Your task to perform on an android device: toggle pop-ups in chrome Image 0: 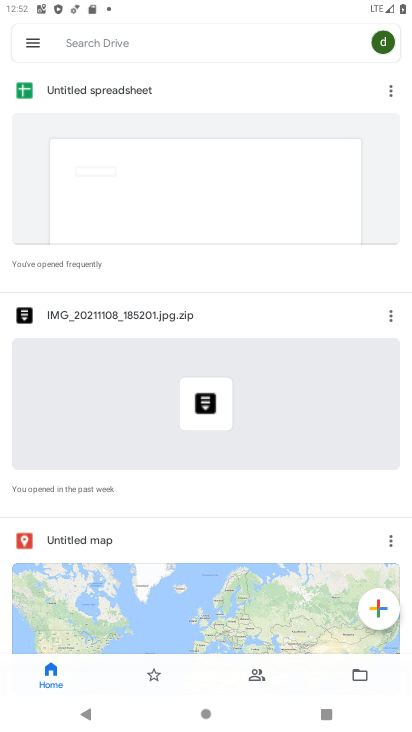
Step 0: press home button
Your task to perform on an android device: toggle pop-ups in chrome Image 1: 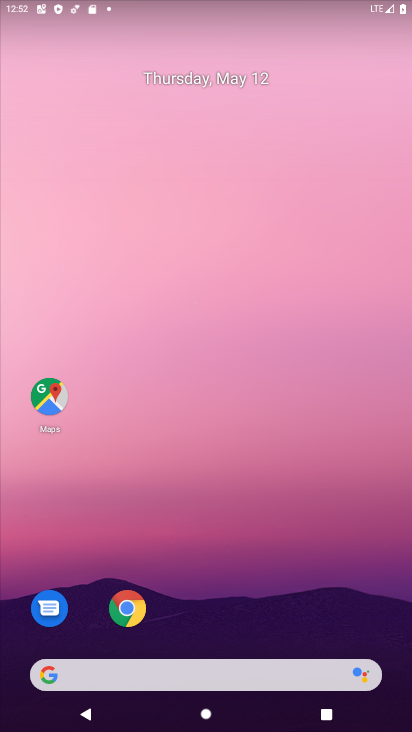
Step 1: click (128, 623)
Your task to perform on an android device: toggle pop-ups in chrome Image 2: 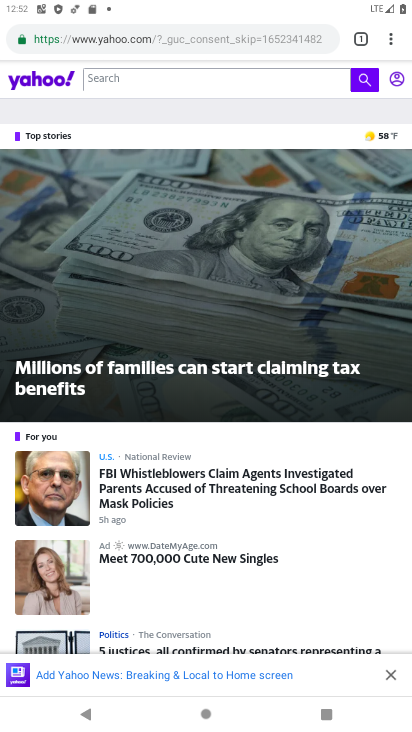
Step 2: click (388, 51)
Your task to perform on an android device: toggle pop-ups in chrome Image 3: 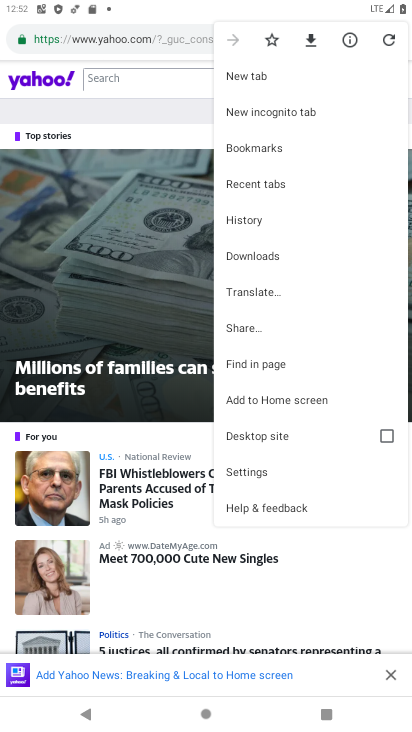
Step 3: click (250, 468)
Your task to perform on an android device: toggle pop-ups in chrome Image 4: 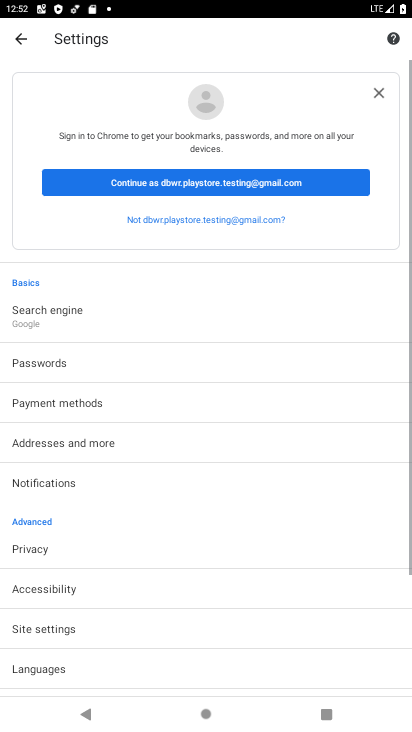
Step 4: click (39, 616)
Your task to perform on an android device: toggle pop-ups in chrome Image 5: 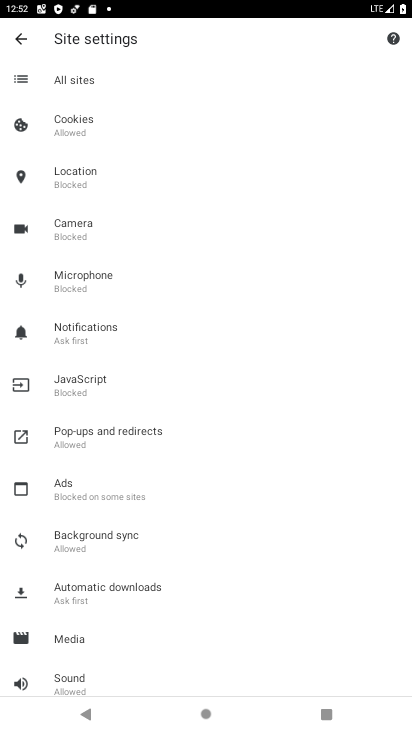
Step 5: click (77, 436)
Your task to perform on an android device: toggle pop-ups in chrome Image 6: 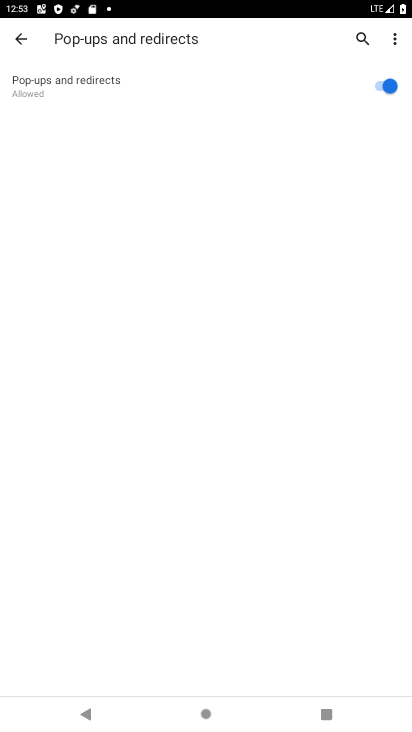
Step 6: click (78, 435)
Your task to perform on an android device: toggle pop-ups in chrome Image 7: 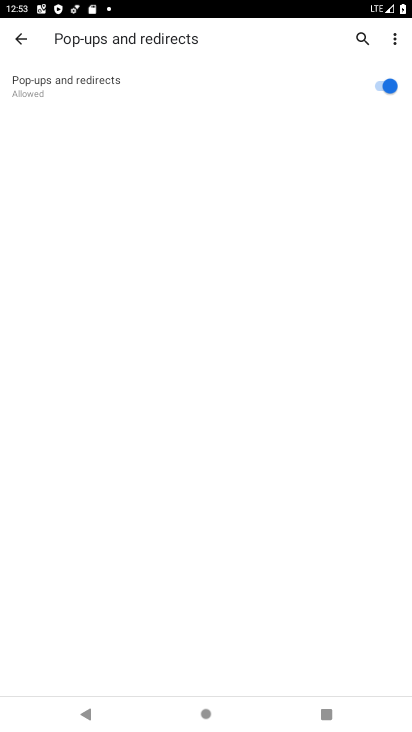
Step 7: click (388, 88)
Your task to perform on an android device: toggle pop-ups in chrome Image 8: 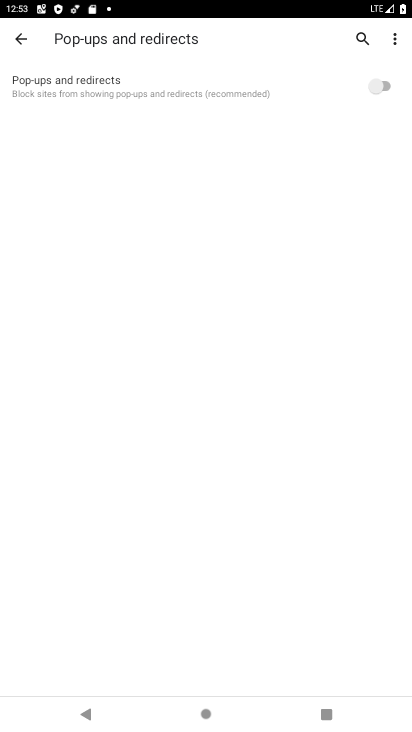
Step 8: task complete